Your task to perform on an android device: Open calendar and show me the third week of next month Image 0: 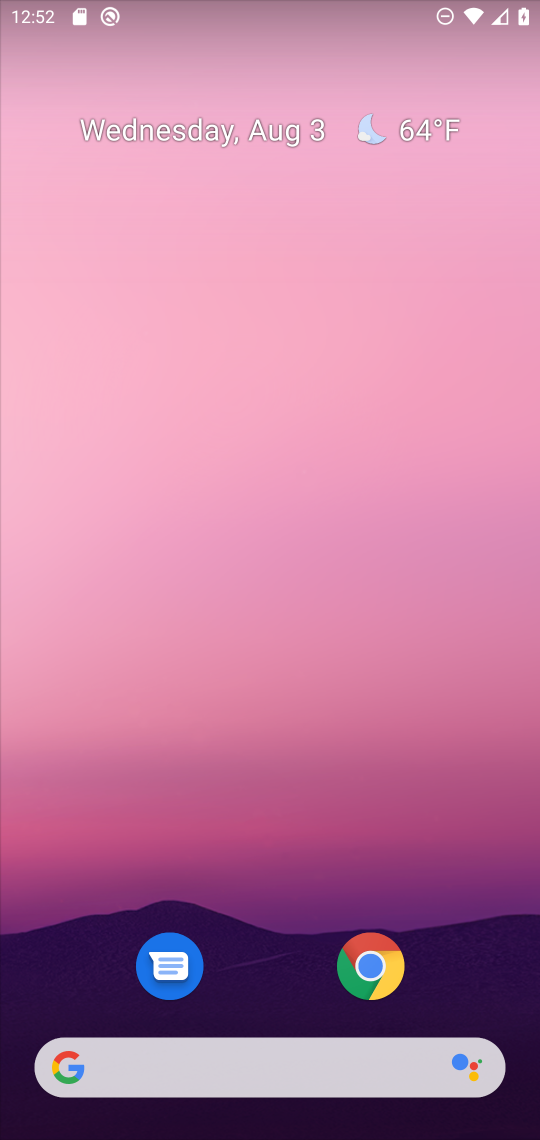
Step 0: drag from (257, 975) to (253, 138)
Your task to perform on an android device: Open calendar and show me the third week of next month Image 1: 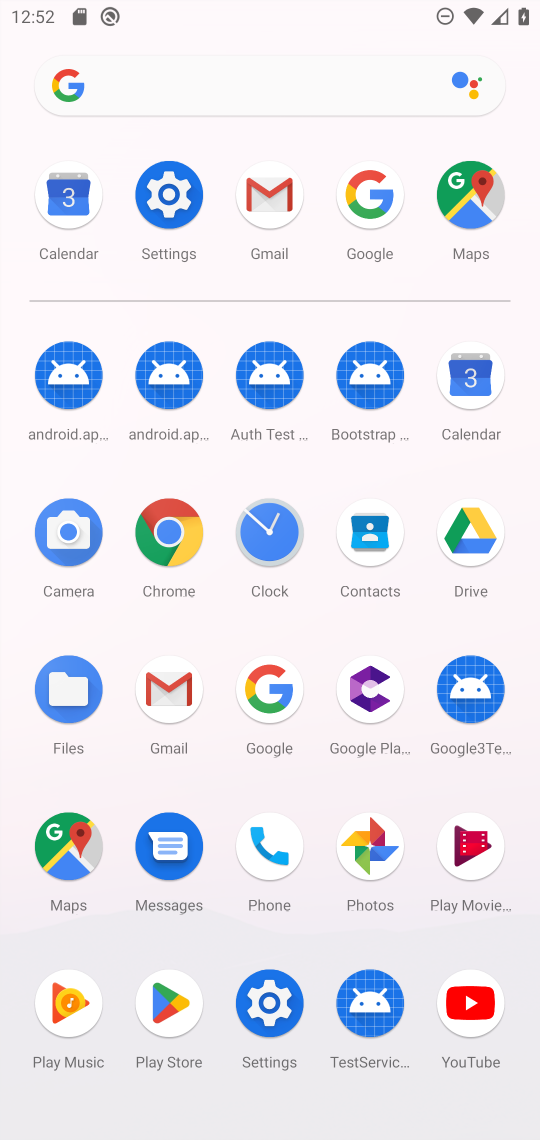
Step 1: click (83, 207)
Your task to perform on an android device: Open calendar and show me the third week of next month Image 2: 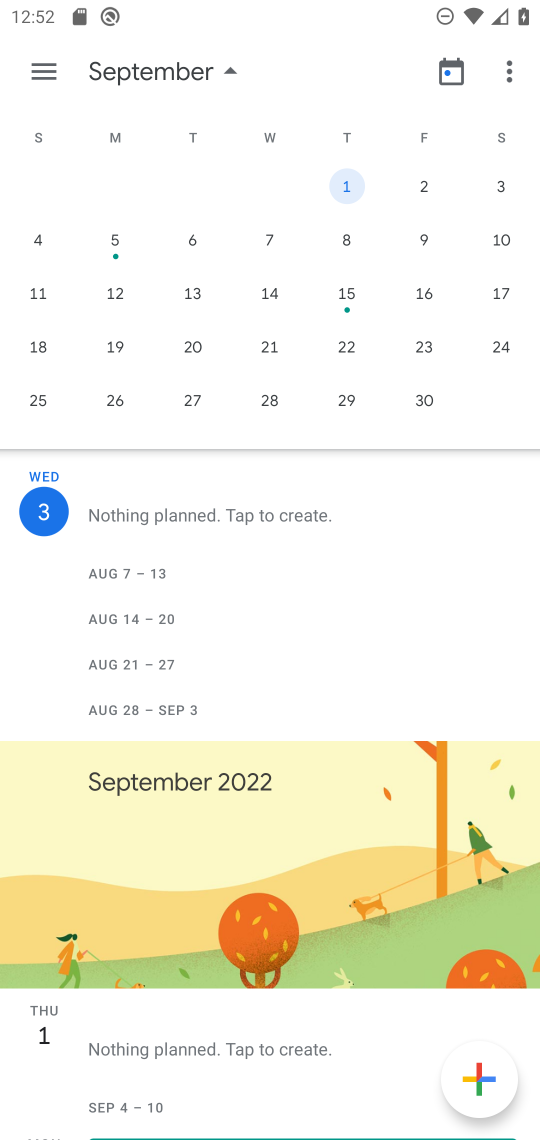
Step 2: click (459, 278)
Your task to perform on an android device: Open calendar and show me the third week of next month Image 3: 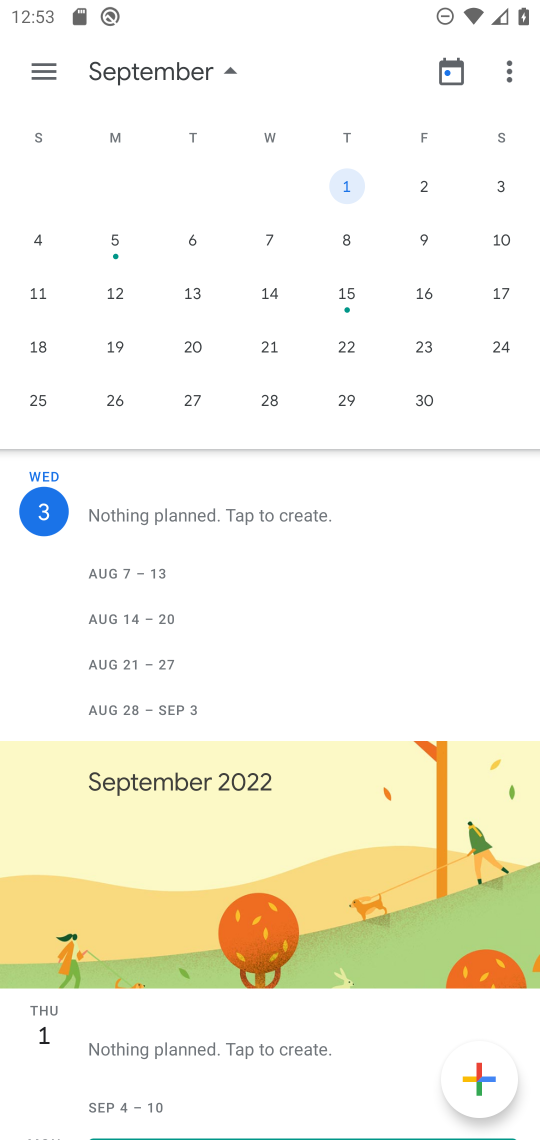
Step 3: click (38, 306)
Your task to perform on an android device: Open calendar and show me the third week of next month Image 4: 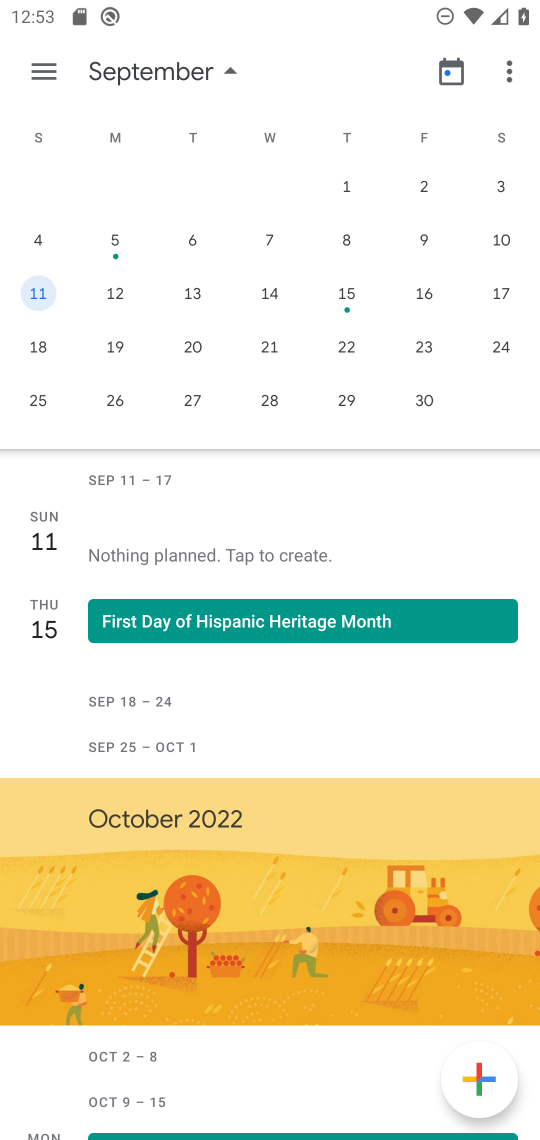
Step 4: click (105, 308)
Your task to perform on an android device: Open calendar and show me the third week of next month Image 5: 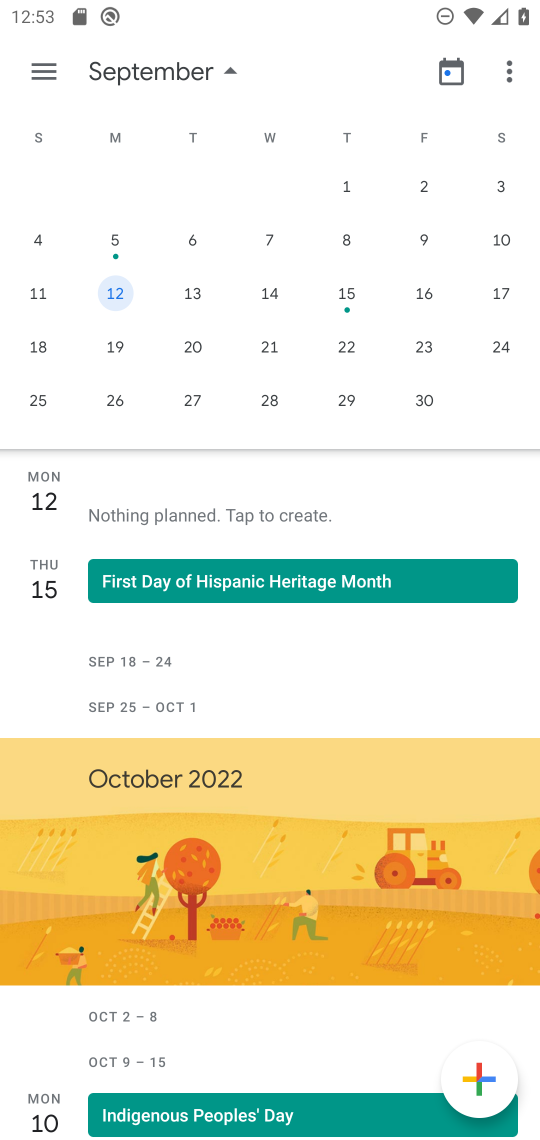
Step 5: click (180, 313)
Your task to perform on an android device: Open calendar and show me the third week of next month Image 6: 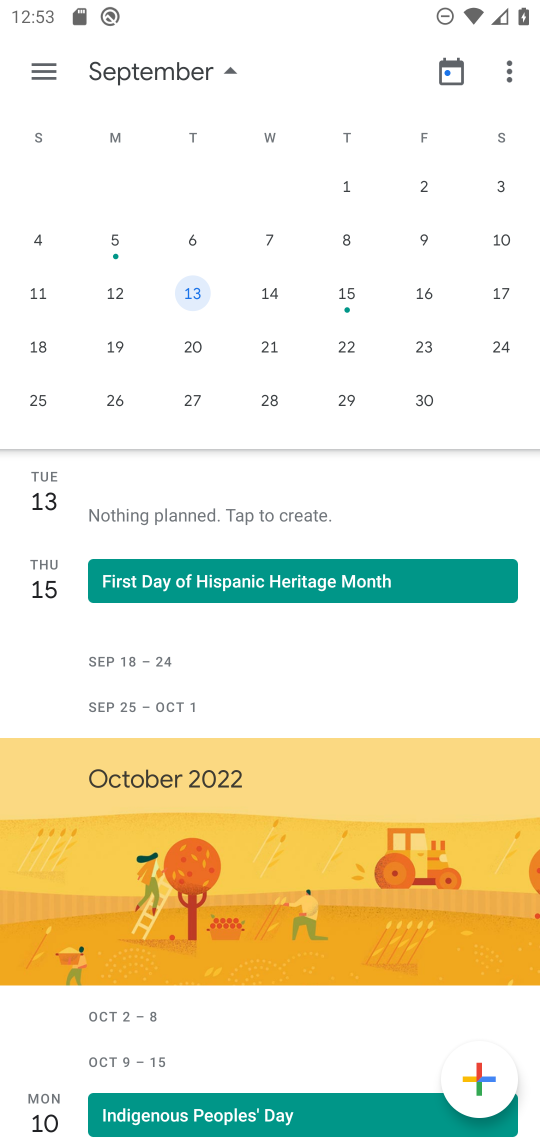
Step 6: task complete